Your task to perform on an android device: Open sound settings Image 0: 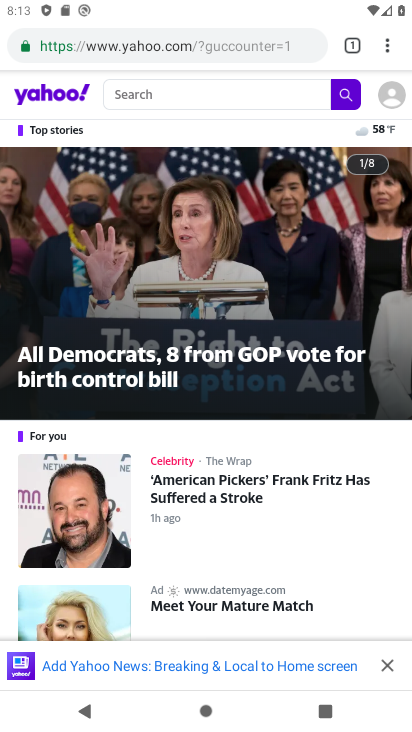
Step 0: press home button
Your task to perform on an android device: Open sound settings Image 1: 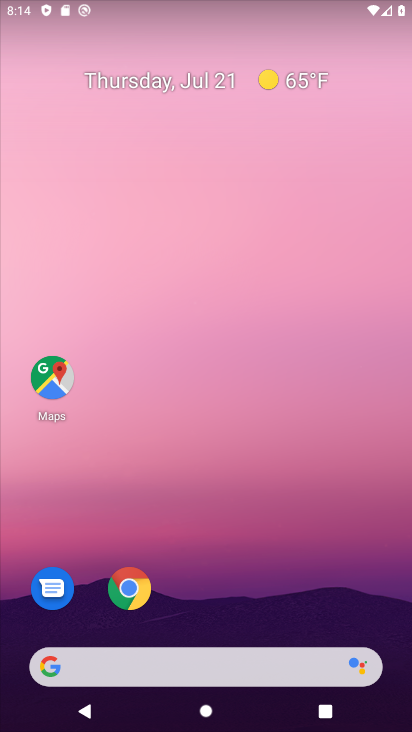
Step 1: drag from (213, 640) to (178, 96)
Your task to perform on an android device: Open sound settings Image 2: 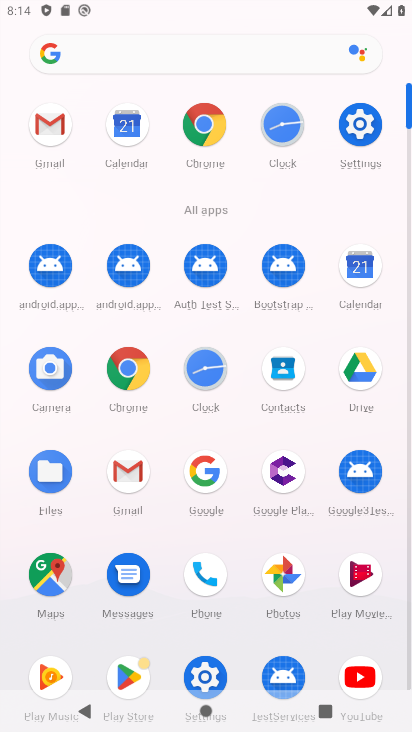
Step 2: click (355, 132)
Your task to perform on an android device: Open sound settings Image 3: 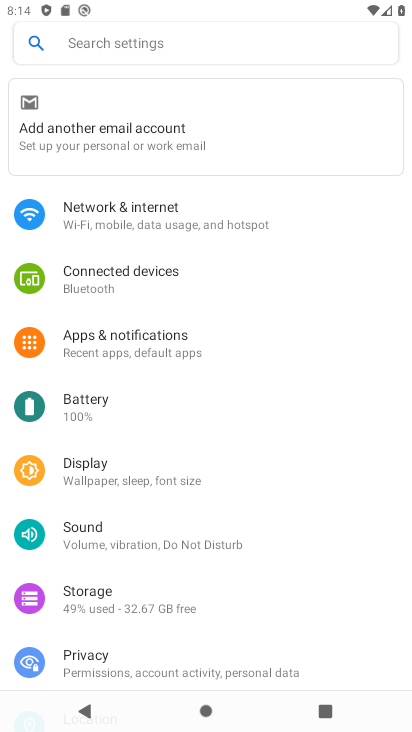
Step 3: click (104, 521)
Your task to perform on an android device: Open sound settings Image 4: 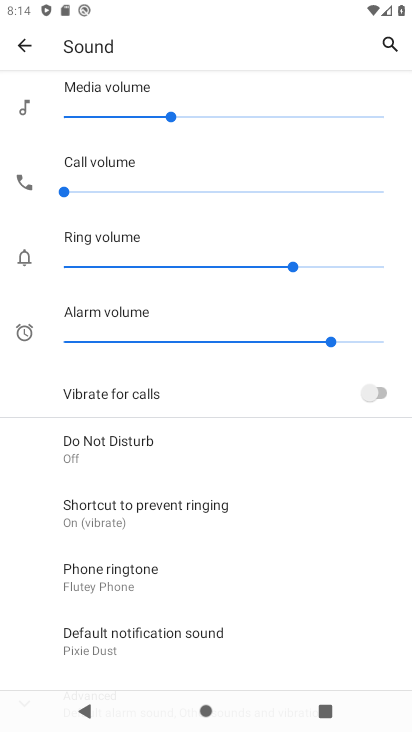
Step 4: task complete